Your task to perform on an android device: Open Amazon Image 0: 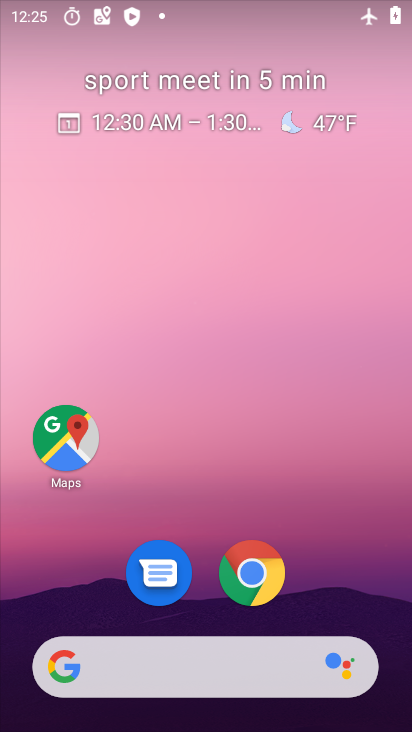
Step 0: click (236, 566)
Your task to perform on an android device: Open Amazon Image 1: 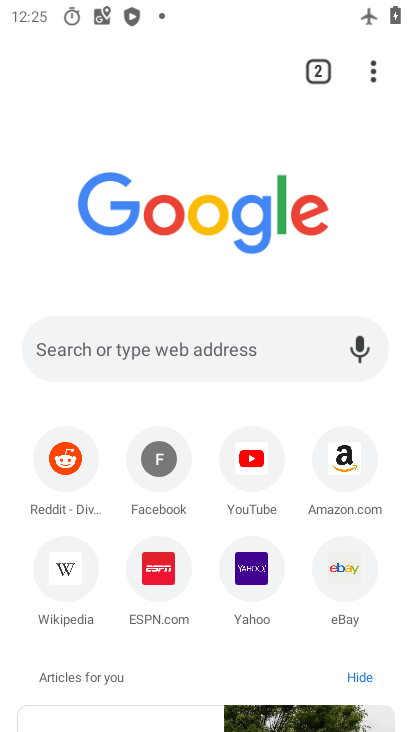
Step 1: click (348, 452)
Your task to perform on an android device: Open Amazon Image 2: 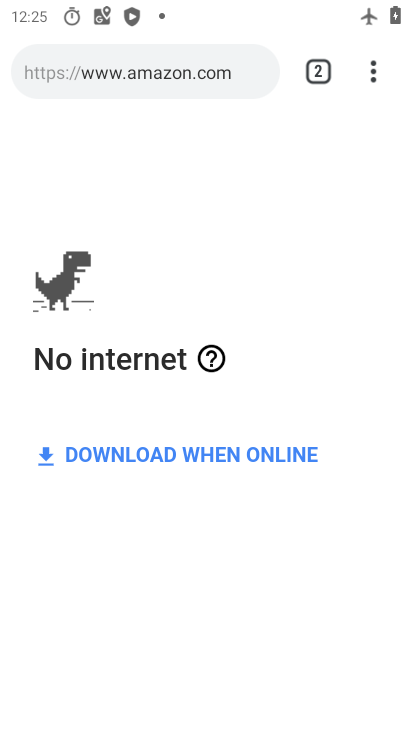
Step 2: task complete